Your task to perform on an android device: snooze an email in the gmail app Image 0: 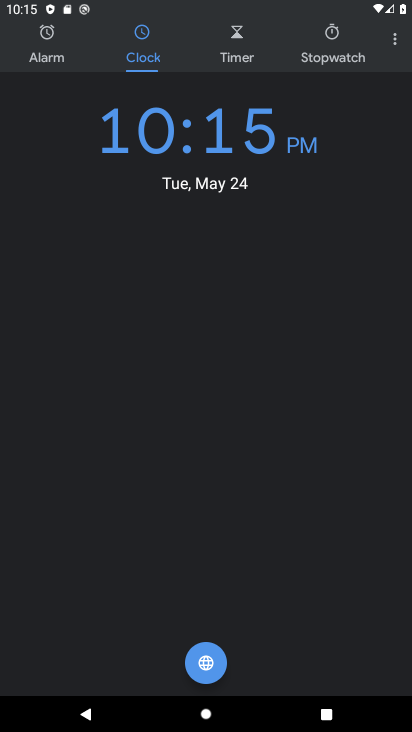
Step 0: press home button
Your task to perform on an android device: snooze an email in the gmail app Image 1: 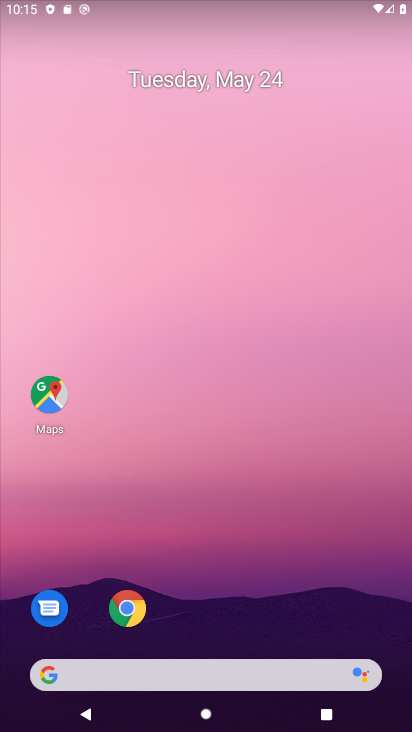
Step 1: drag from (366, 632) to (338, 73)
Your task to perform on an android device: snooze an email in the gmail app Image 2: 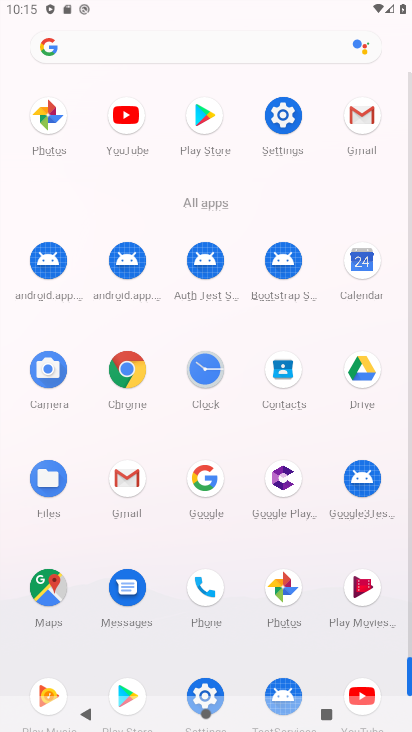
Step 2: click (128, 477)
Your task to perform on an android device: snooze an email in the gmail app Image 3: 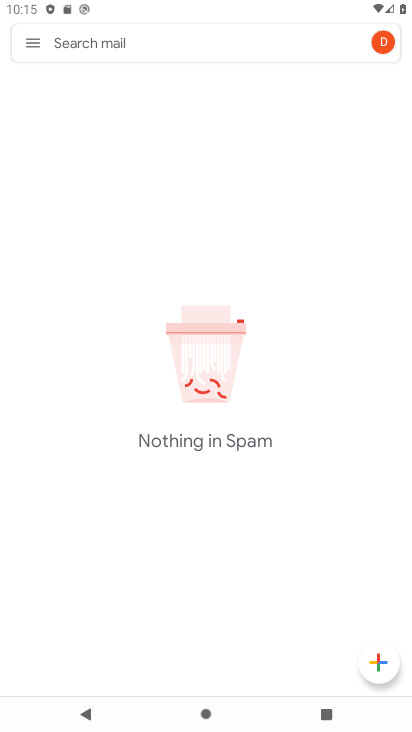
Step 3: click (28, 40)
Your task to perform on an android device: snooze an email in the gmail app Image 4: 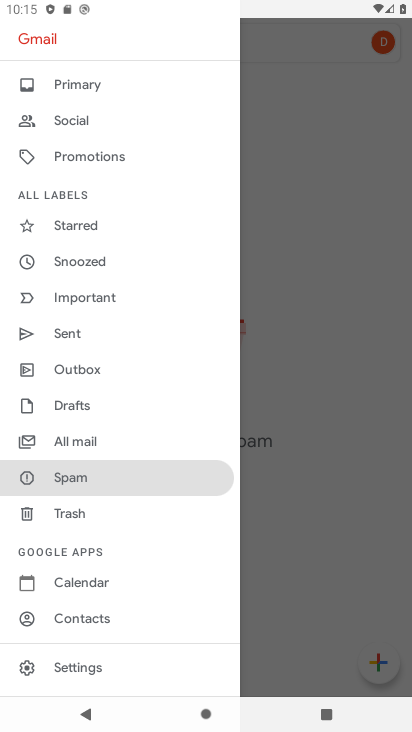
Step 4: click (85, 433)
Your task to perform on an android device: snooze an email in the gmail app Image 5: 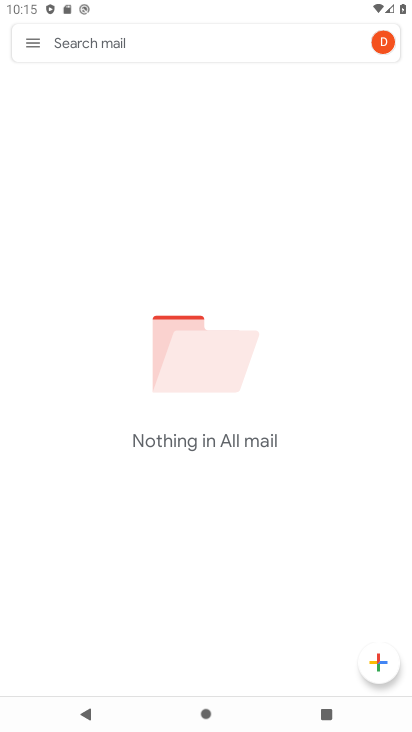
Step 5: task complete